Your task to perform on an android device: Open Google Image 0: 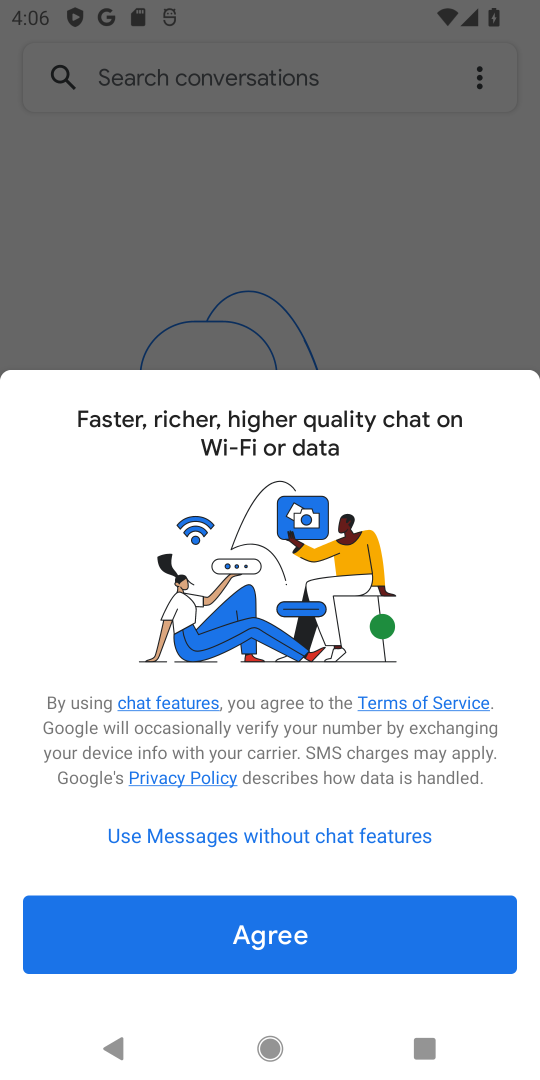
Step 0: press home button
Your task to perform on an android device: Open Google Image 1: 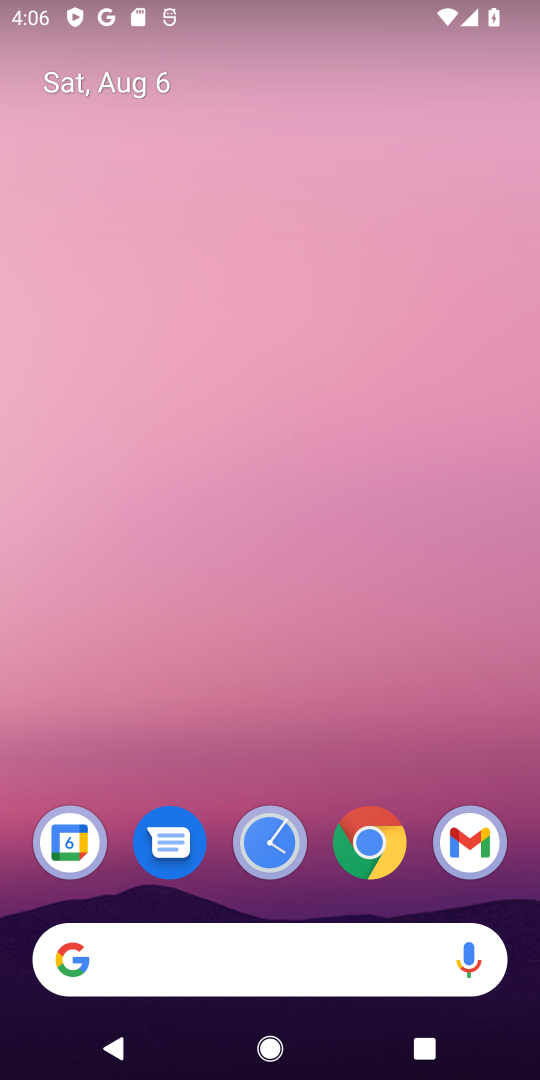
Step 1: drag from (512, 1038) to (387, 112)
Your task to perform on an android device: Open Google Image 2: 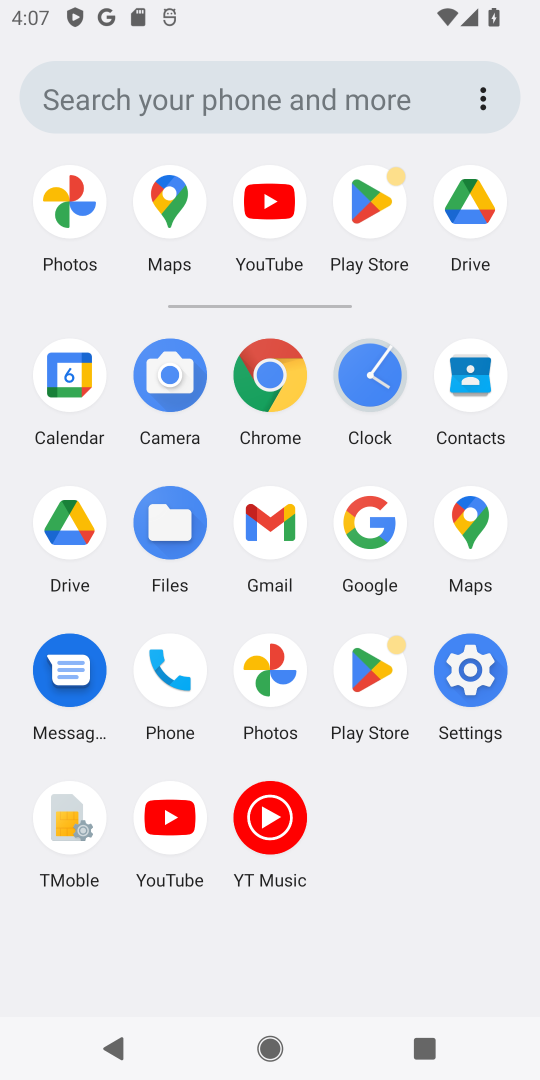
Step 2: click (366, 541)
Your task to perform on an android device: Open Google Image 3: 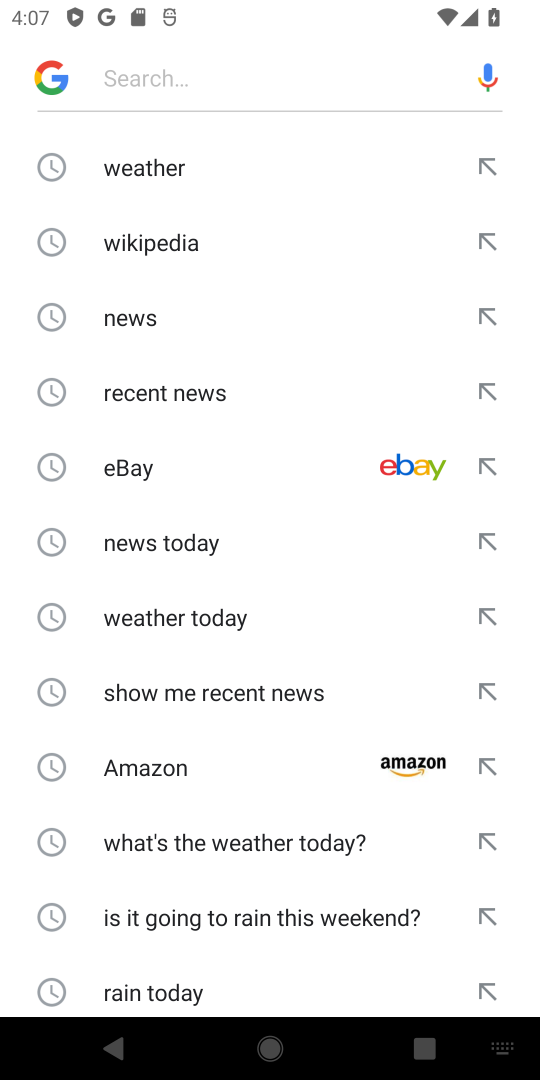
Step 3: press back button
Your task to perform on an android device: Open Google Image 4: 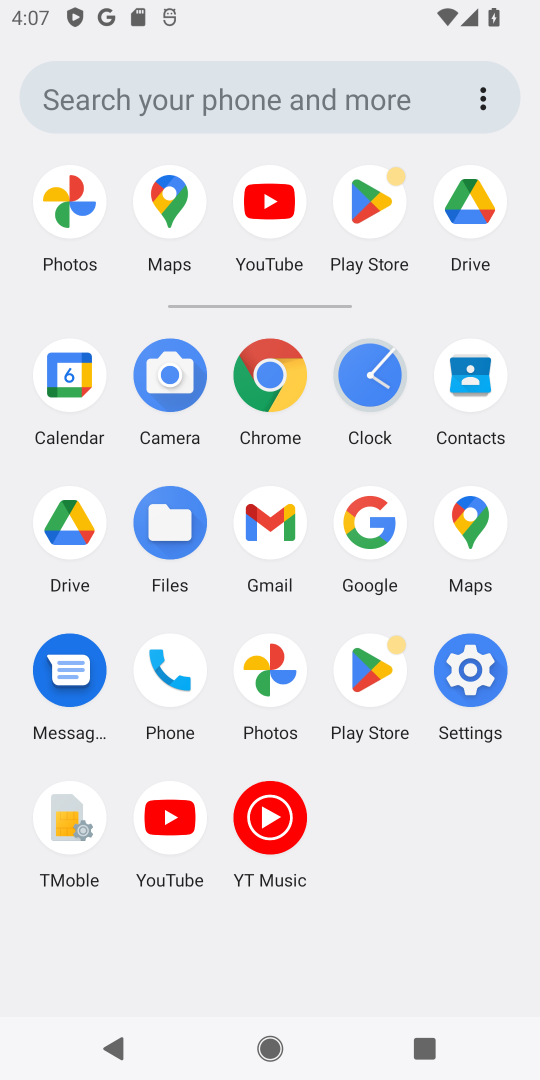
Step 4: click (385, 529)
Your task to perform on an android device: Open Google Image 5: 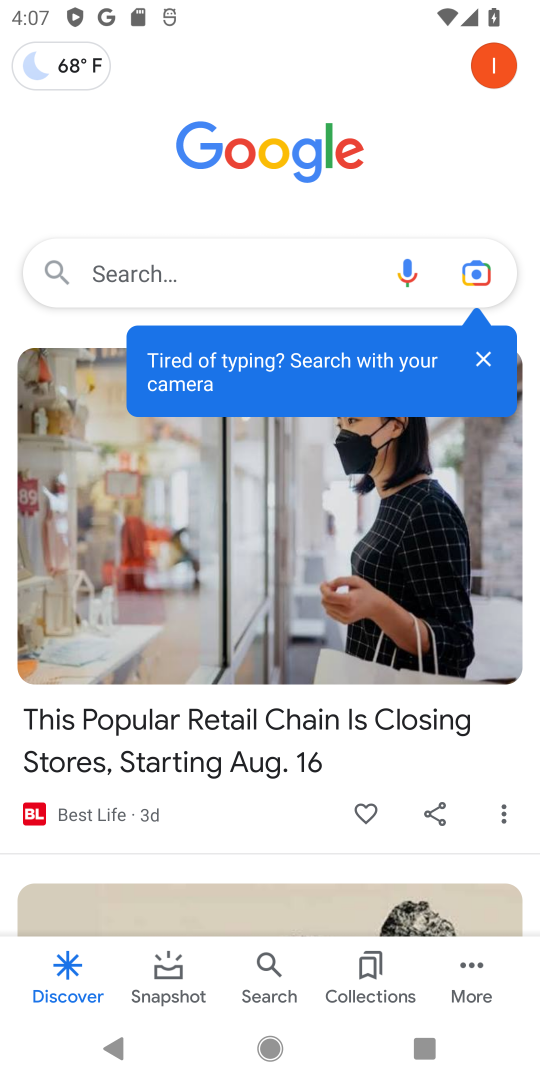
Step 5: task complete